Your task to perform on an android device: Show me productivity apps on the Play Store Image 0: 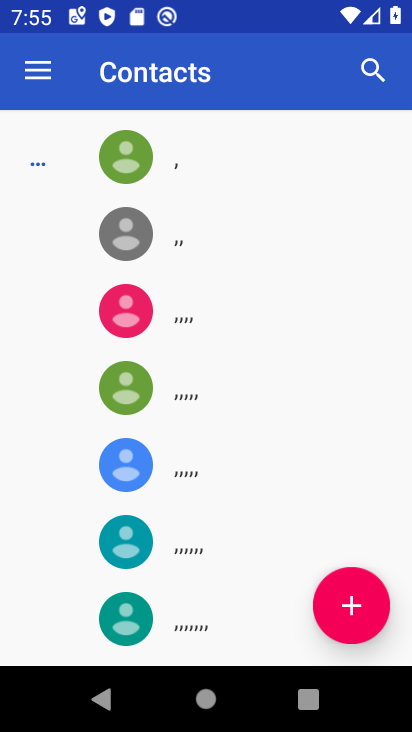
Step 0: press home button
Your task to perform on an android device: Show me productivity apps on the Play Store Image 1: 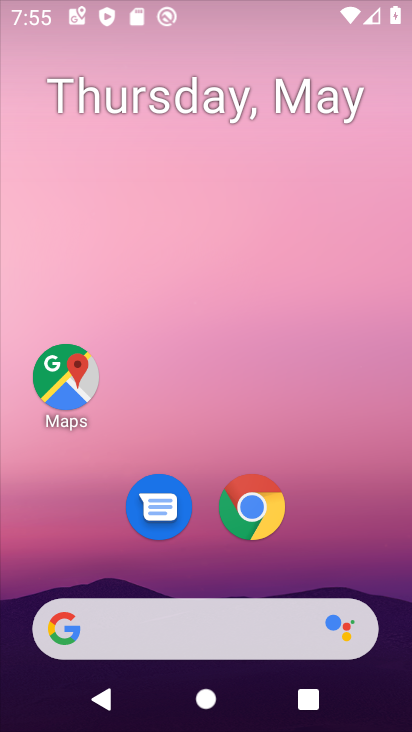
Step 1: drag from (237, 663) to (156, 180)
Your task to perform on an android device: Show me productivity apps on the Play Store Image 2: 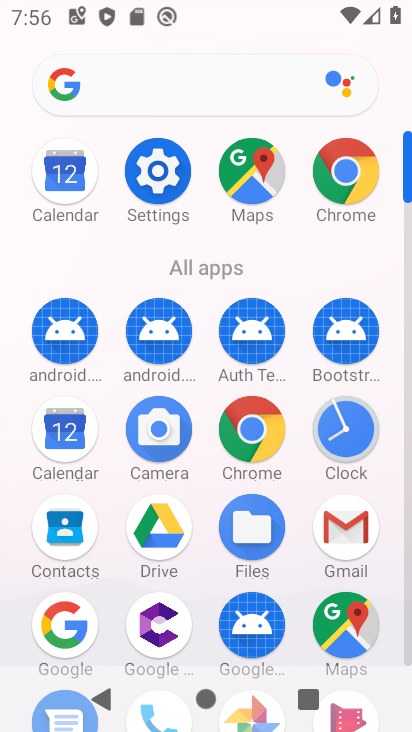
Step 2: drag from (118, 488) to (93, 164)
Your task to perform on an android device: Show me productivity apps on the Play Store Image 3: 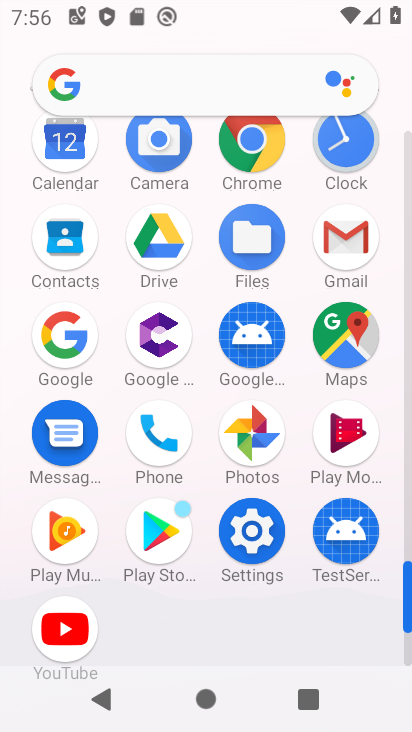
Step 3: click (169, 521)
Your task to perform on an android device: Show me productivity apps on the Play Store Image 4: 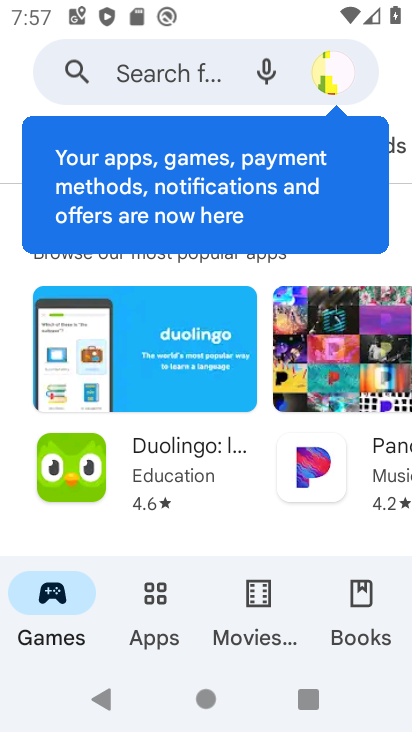
Step 4: click (173, 59)
Your task to perform on an android device: Show me productivity apps on the Play Store Image 5: 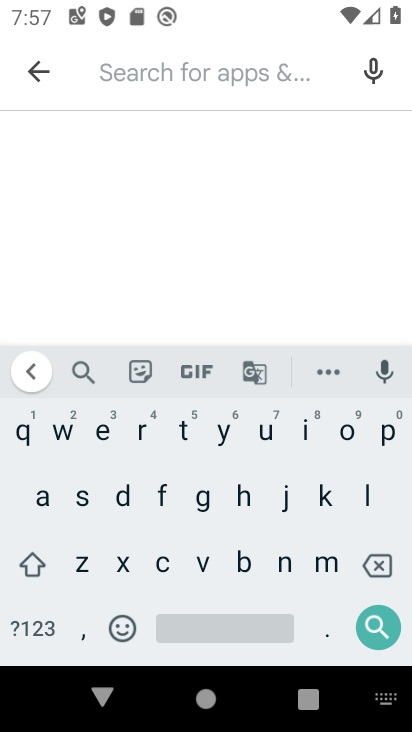
Step 5: click (382, 426)
Your task to perform on an android device: Show me productivity apps on the Play Store Image 6: 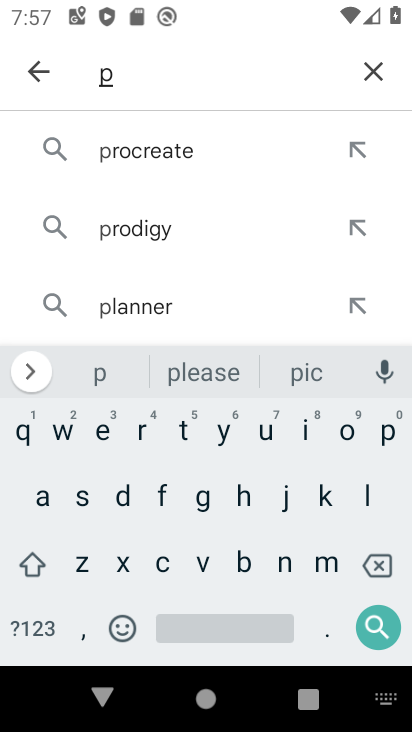
Step 6: click (145, 442)
Your task to perform on an android device: Show me productivity apps on the Play Store Image 7: 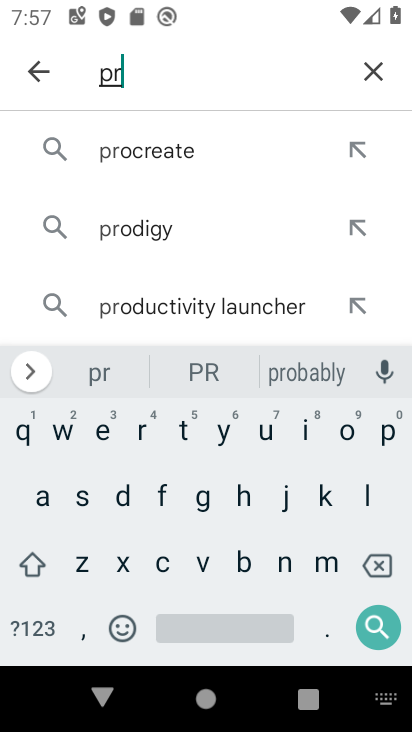
Step 7: click (343, 428)
Your task to perform on an android device: Show me productivity apps on the Play Store Image 8: 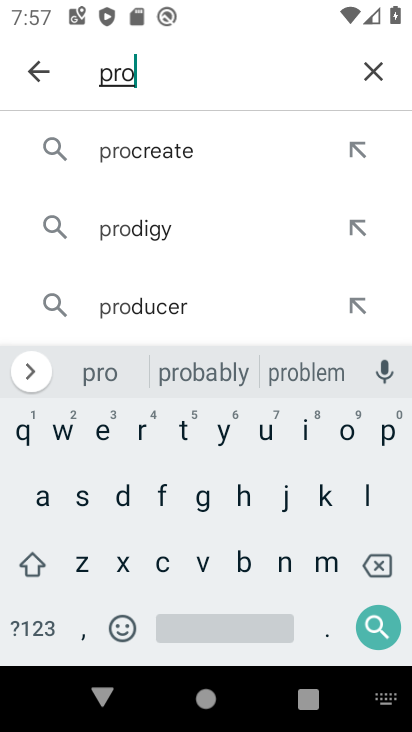
Step 8: click (118, 491)
Your task to perform on an android device: Show me productivity apps on the Play Store Image 9: 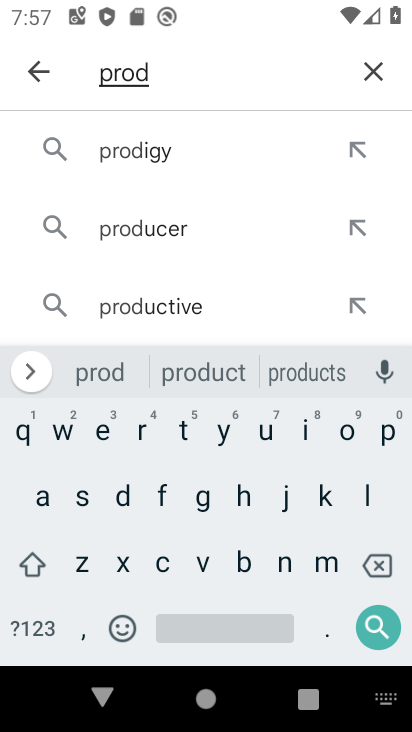
Step 9: click (263, 427)
Your task to perform on an android device: Show me productivity apps on the Play Store Image 10: 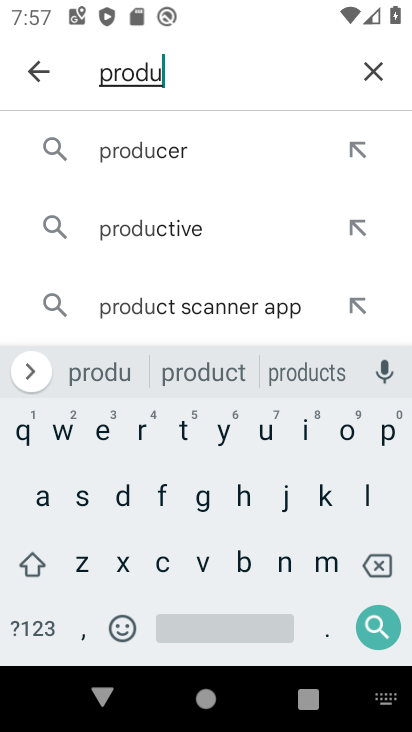
Step 10: click (154, 564)
Your task to perform on an android device: Show me productivity apps on the Play Store Image 11: 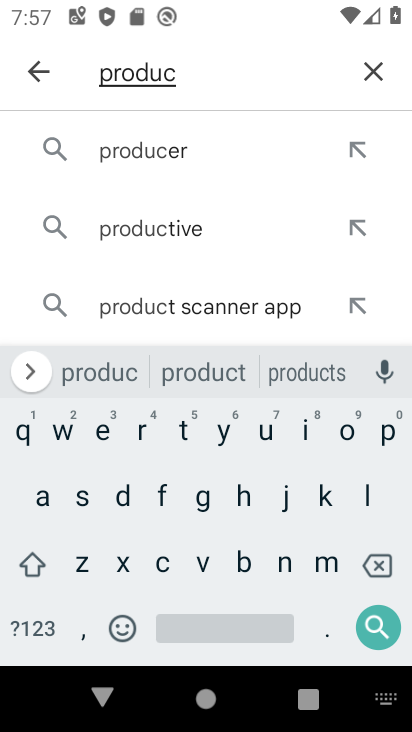
Step 11: click (187, 438)
Your task to perform on an android device: Show me productivity apps on the Play Store Image 12: 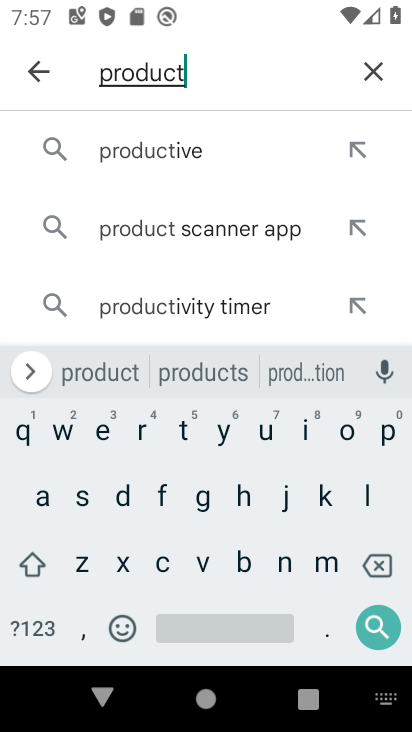
Step 12: click (306, 428)
Your task to perform on an android device: Show me productivity apps on the Play Store Image 13: 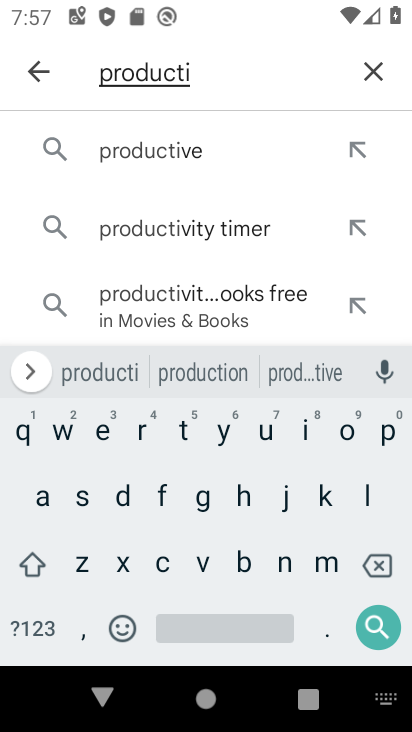
Step 13: click (203, 557)
Your task to perform on an android device: Show me productivity apps on the Play Store Image 14: 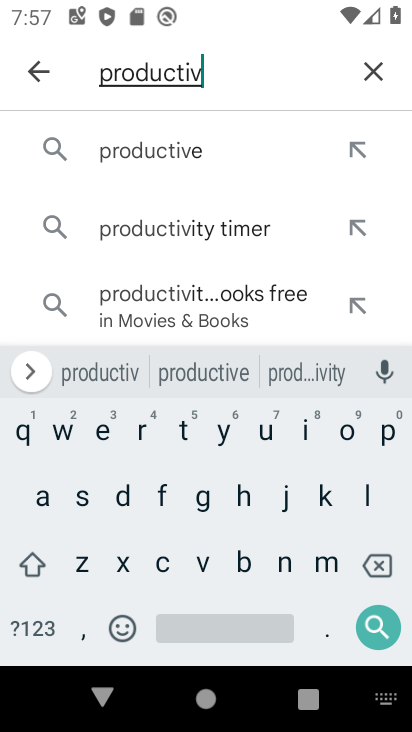
Step 14: click (293, 382)
Your task to perform on an android device: Show me productivity apps on the Play Store Image 15: 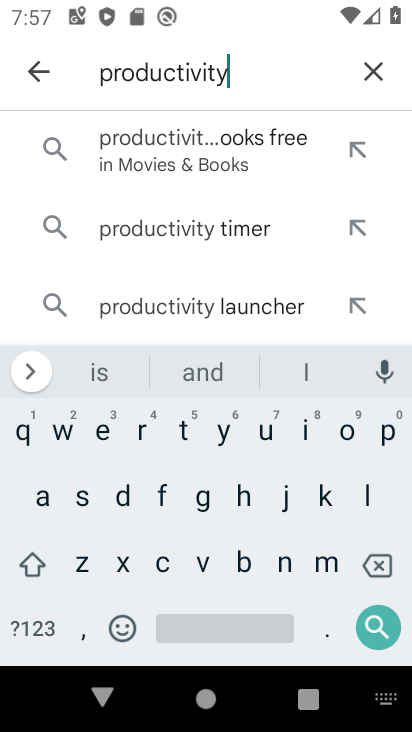
Step 15: click (35, 499)
Your task to perform on an android device: Show me productivity apps on the Play Store Image 16: 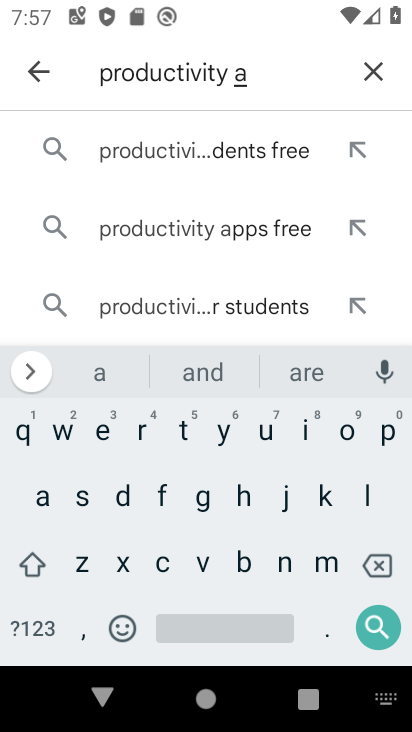
Step 16: click (381, 436)
Your task to perform on an android device: Show me productivity apps on the Play Store Image 17: 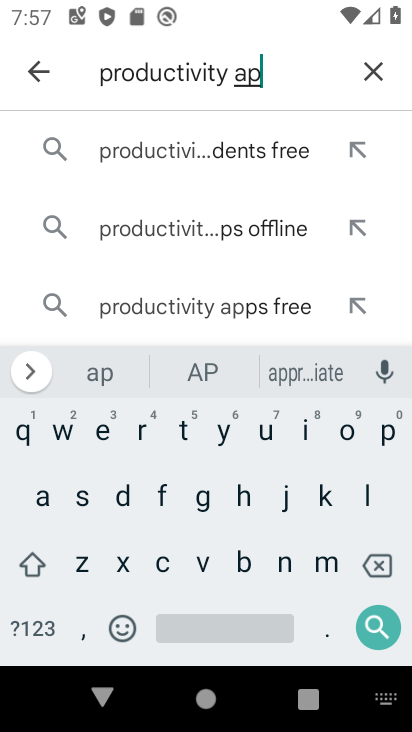
Step 17: click (381, 436)
Your task to perform on an android device: Show me productivity apps on the Play Store Image 18: 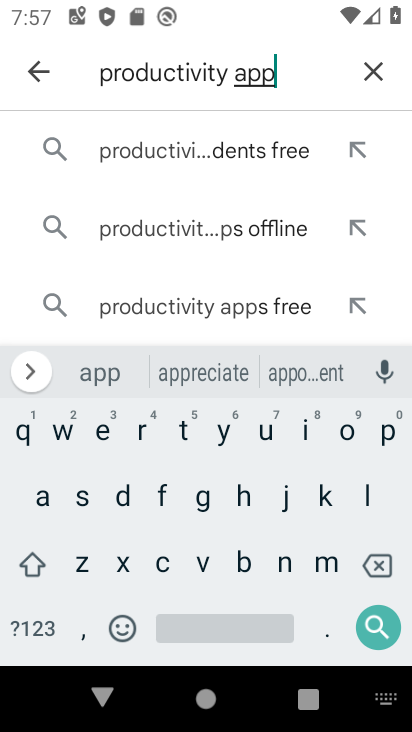
Step 18: click (74, 492)
Your task to perform on an android device: Show me productivity apps on the Play Store Image 19: 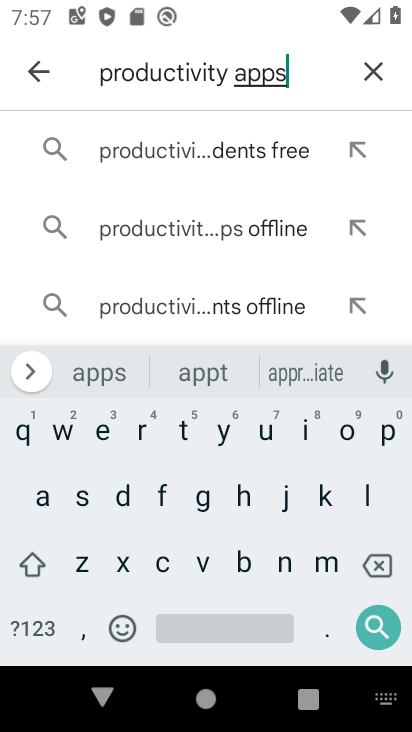
Step 19: click (381, 615)
Your task to perform on an android device: Show me productivity apps on the Play Store Image 20: 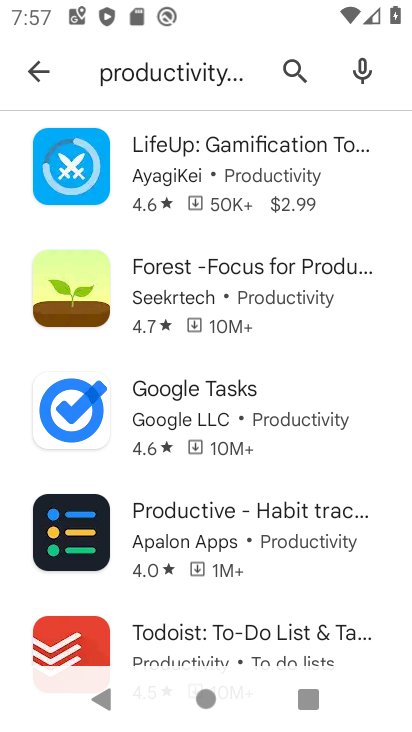
Step 20: task complete